Your task to perform on an android device: Turn on the flashlight Image 0: 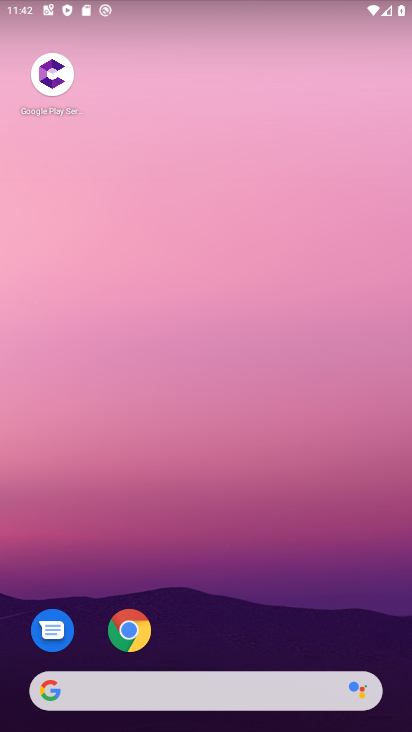
Step 0: drag from (269, 4) to (268, 350)
Your task to perform on an android device: Turn on the flashlight Image 1: 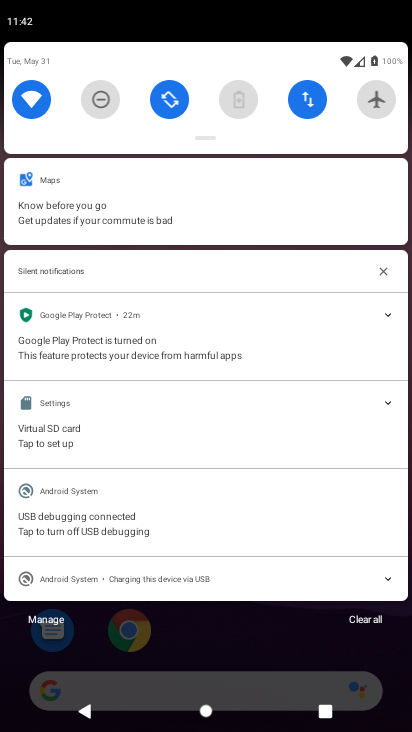
Step 1: task complete